Your task to perform on an android device: change timer sound Image 0: 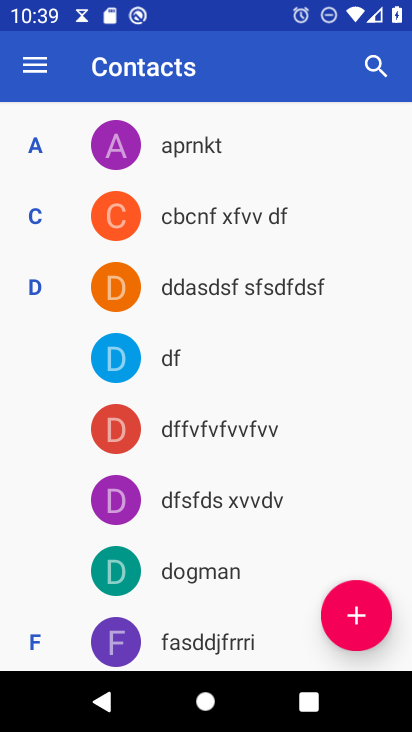
Step 0: press home button
Your task to perform on an android device: change timer sound Image 1: 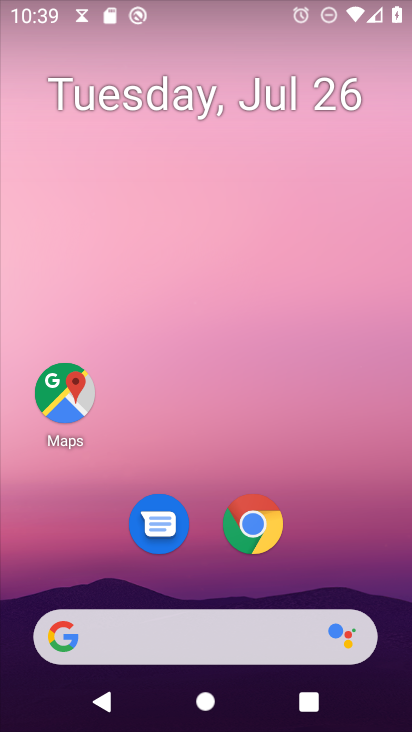
Step 1: drag from (220, 589) to (344, 133)
Your task to perform on an android device: change timer sound Image 2: 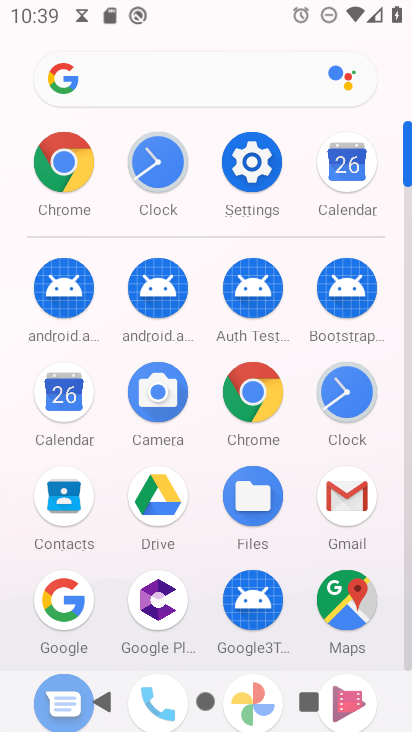
Step 2: click (342, 392)
Your task to perform on an android device: change timer sound Image 3: 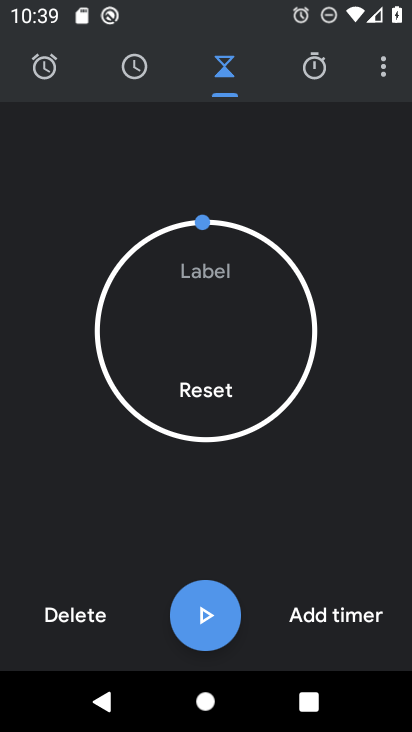
Step 3: click (389, 69)
Your task to perform on an android device: change timer sound Image 4: 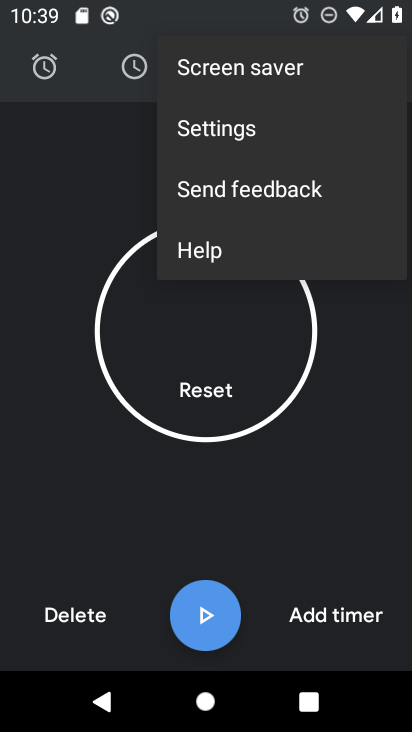
Step 4: click (239, 131)
Your task to perform on an android device: change timer sound Image 5: 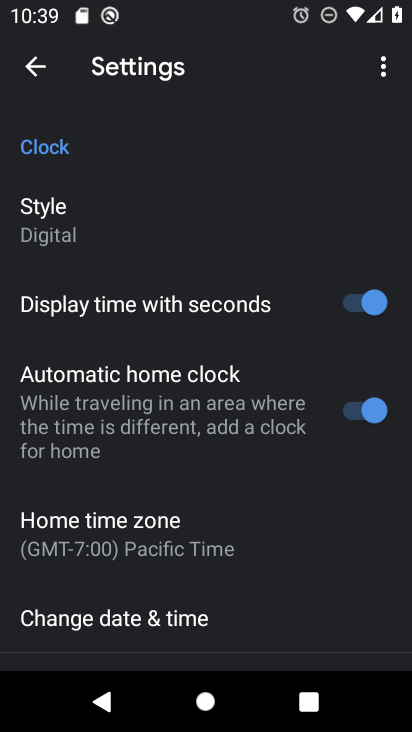
Step 5: drag from (255, 585) to (395, 72)
Your task to perform on an android device: change timer sound Image 6: 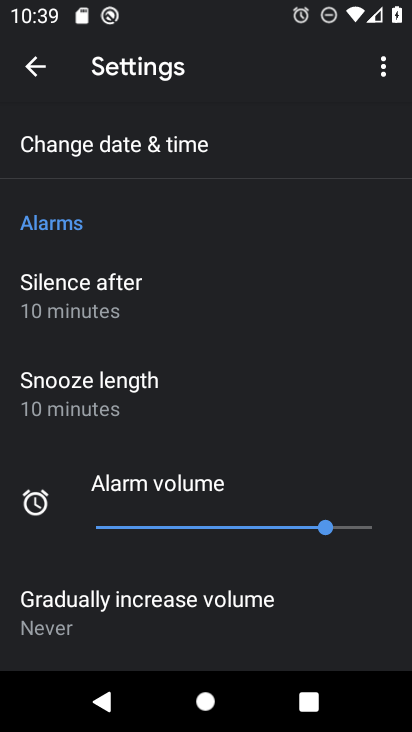
Step 6: drag from (320, 611) to (407, 121)
Your task to perform on an android device: change timer sound Image 7: 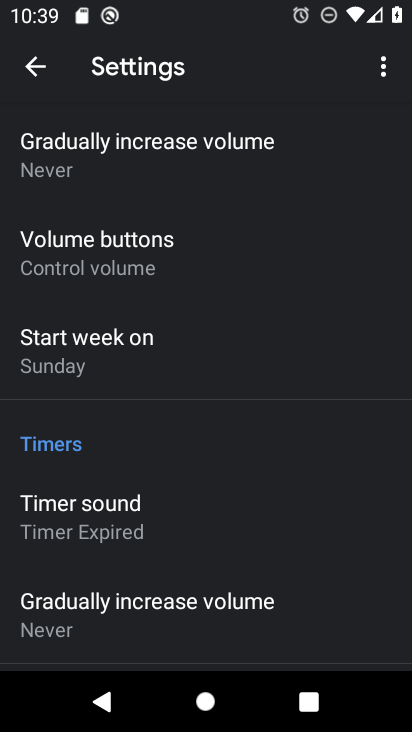
Step 7: click (86, 516)
Your task to perform on an android device: change timer sound Image 8: 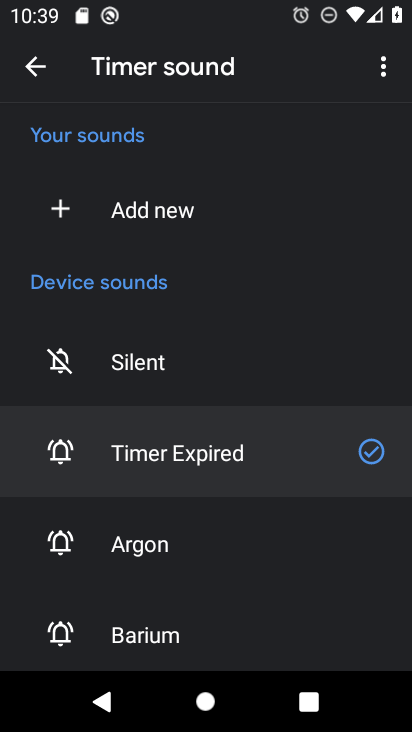
Step 8: drag from (255, 582) to (328, 83)
Your task to perform on an android device: change timer sound Image 9: 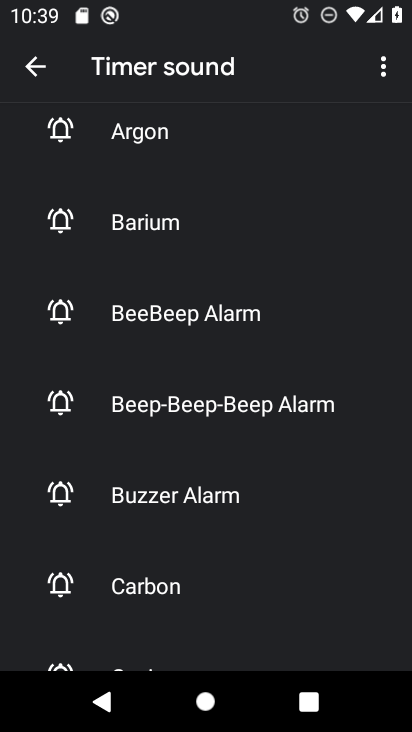
Step 9: click (121, 229)
Your task to perform on an android device: change timer sound Image 10: 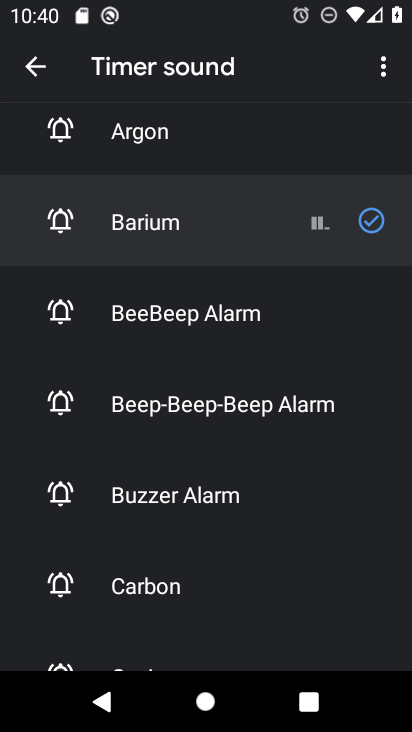
Step 10: task complete